Your task to perform on an android device: set the stopwatch Image 0: 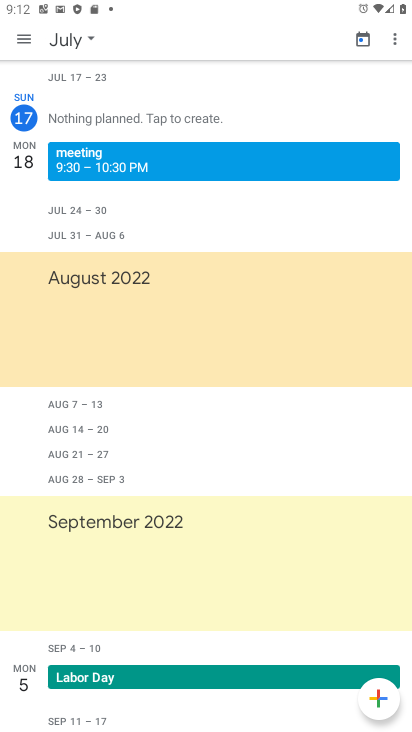
Step 0: press home button
Your task to perform on an android device: set the stopwatch Image 1: 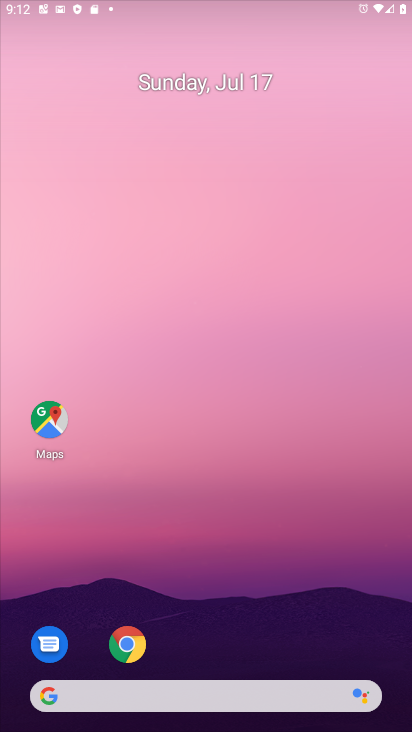
Step 1: drag from (209, 671) to (344, 8)
Your task to perform on an android device: set the stopwatch Image 2: 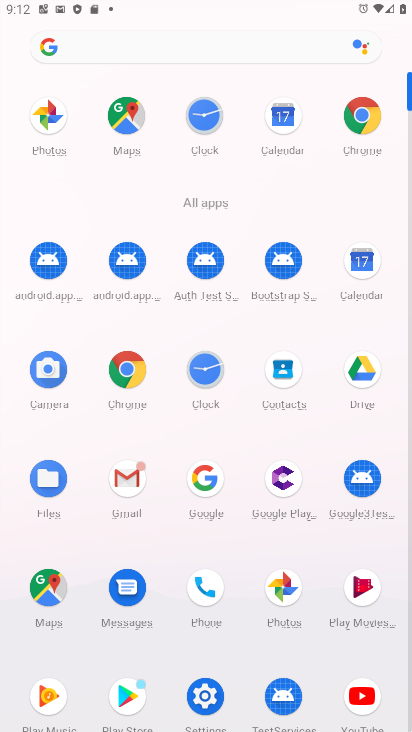
Step 2: click (212, 373)
Your task to perform on an android device: set the stopwatch Image 3: 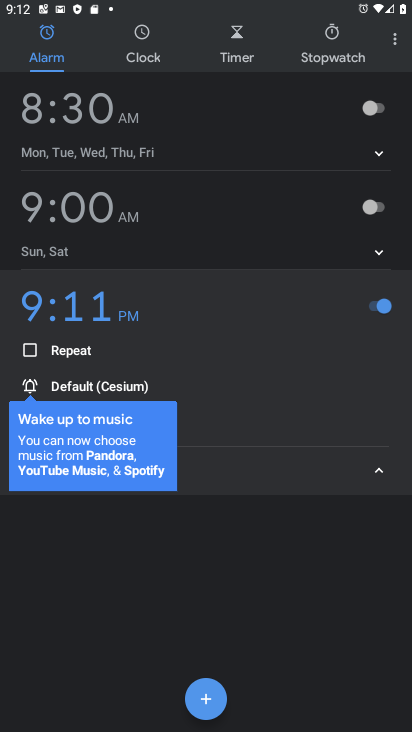
Step 3: click (321, 47)
Your task to perform on an android device: set the stopwatch Image 4: 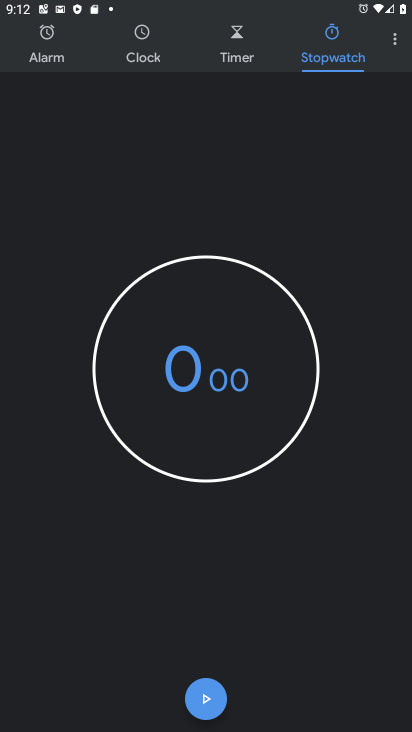
Step 4: click (202, 692)
Your task to perform on an android device: set the stopwatch Image 5: 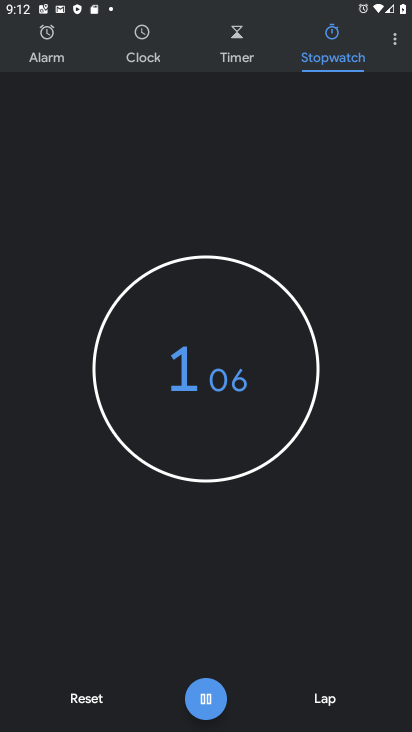
Step 5: click (202, 692)
Your task to perform on an android device: set the stopwatch Image 6: 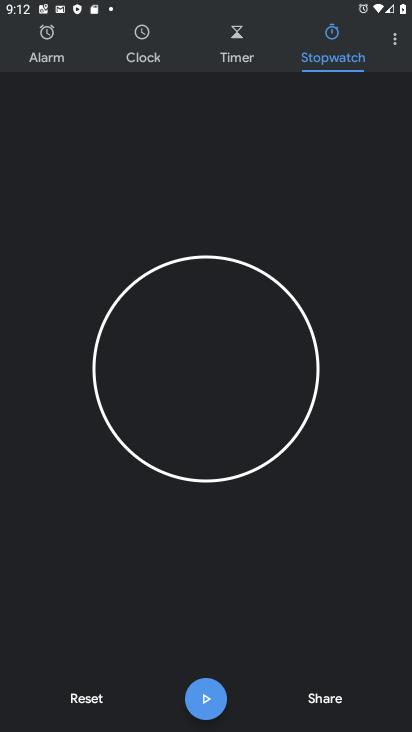
Step 6: click (78, 703)
Your task to perform on an android device: set the stopwatch Image 7: 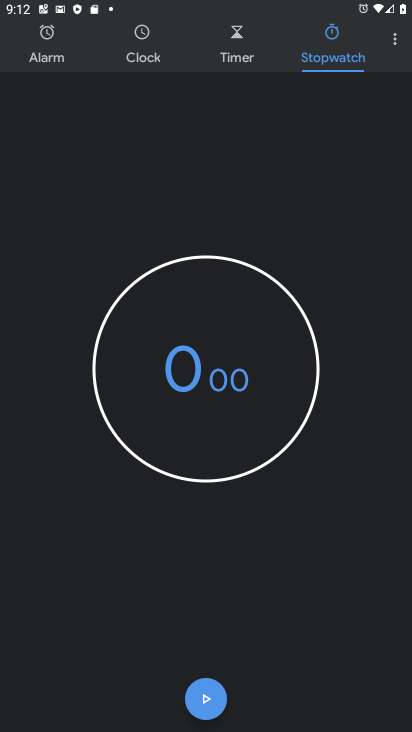
Step 7: task complete